Your task to perform on an android device: Go to Reddit.com Image 0: 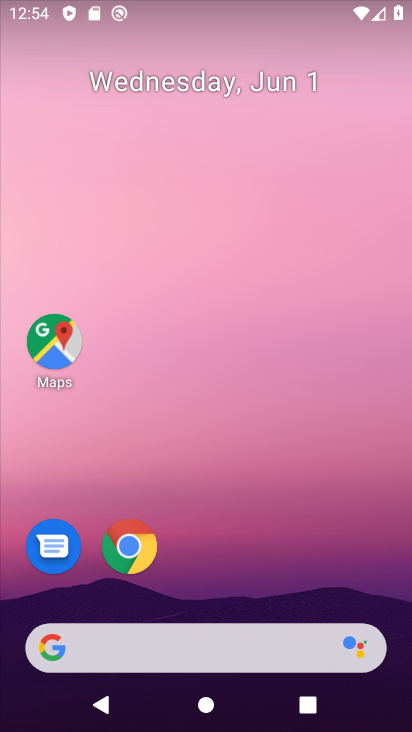
Step 0: drag from (213, 613) to (132, 24)
Your task to perform on an android device: Go to Reddit.com Image 1: 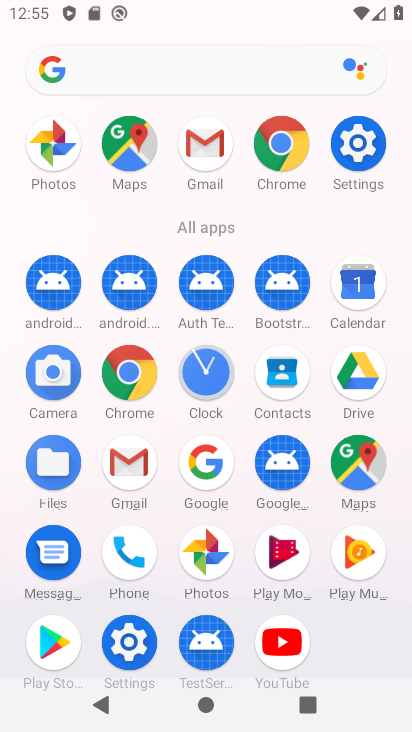
Step 1: click (190, 470)
Your task to perform on an android device: Go to Reddit.com Image 2: 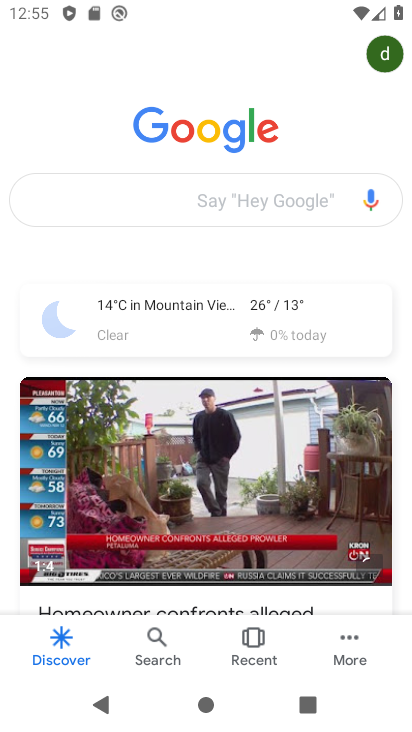
Step 2: click (180, 207)
Your task to perform on an android device: Go to Reddit.com Image 3: 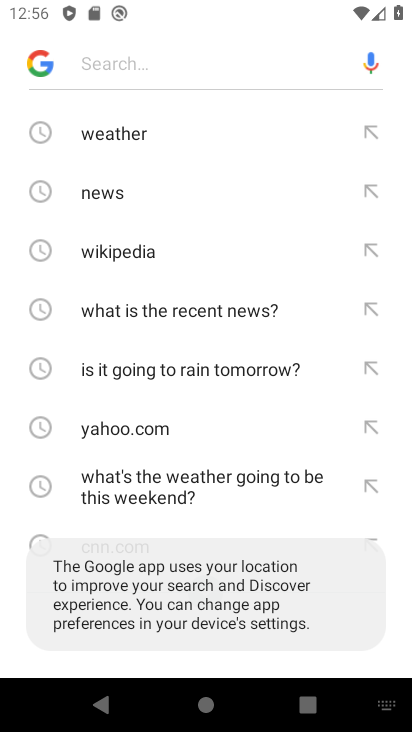
Step 3: drag from (128, 431) to (103, 219)
Your task to perform on an android device: Go to Reddit.com Image 4: 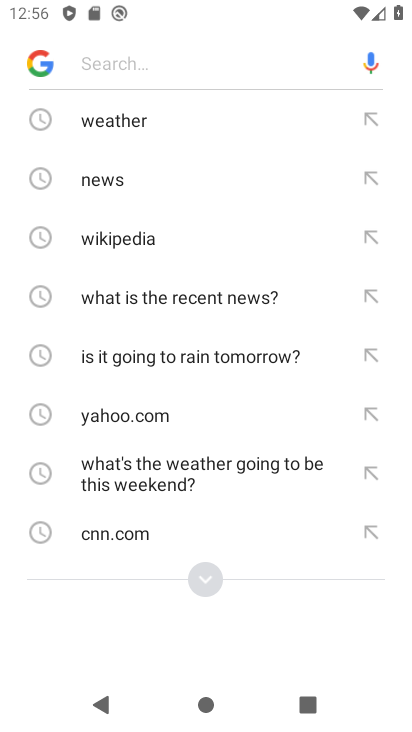
Step 4: drag from (126, 497) to (74, 225)
Your task to perform on an android device: Go to Reddit.com Image 5: 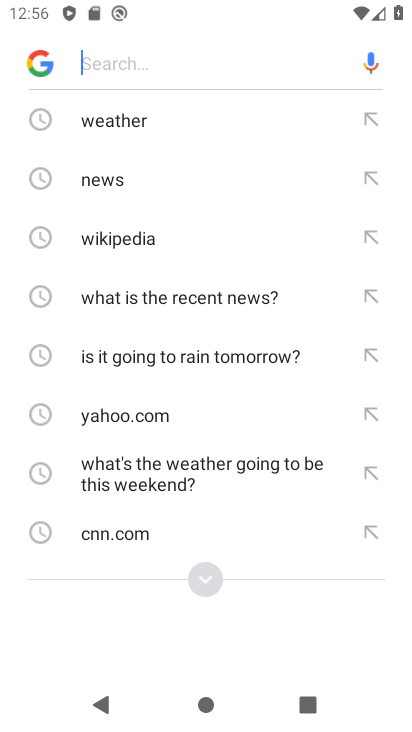
Step 5: click (94, 78)
Your task to perform on an android device: Go to Reddit.com Image 6: 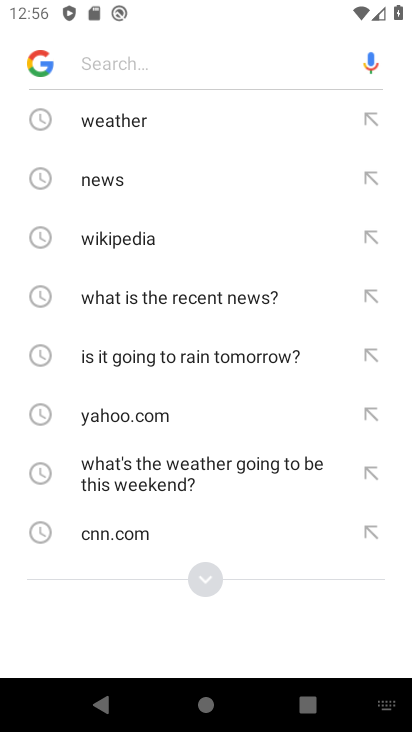
Step 6: type "reddit"
Your task to perform on an android device: Go to Reddit.com Image 7: 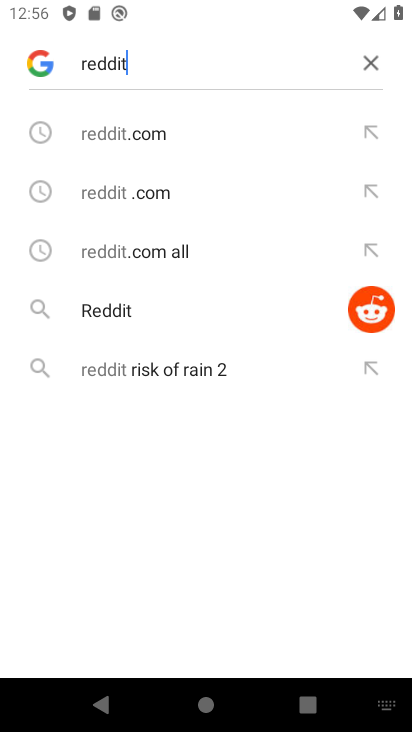
Step 7: click (94, 129)
Your task to perform on an android device: Go to Reddit.com Image 8: 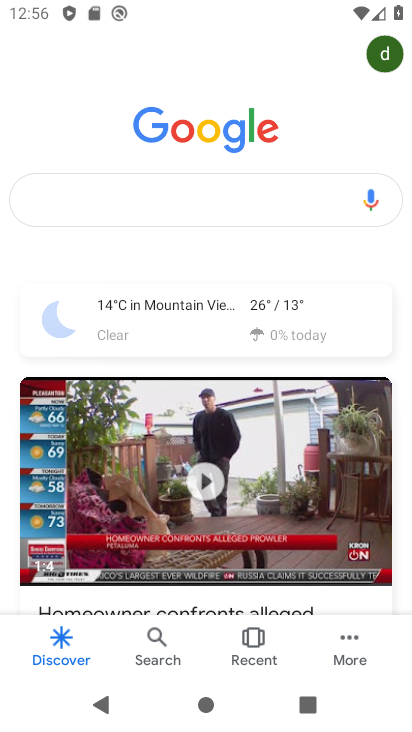
Step 8: task complete